Your task to perform on an android device: What is the recent news? Image 0: 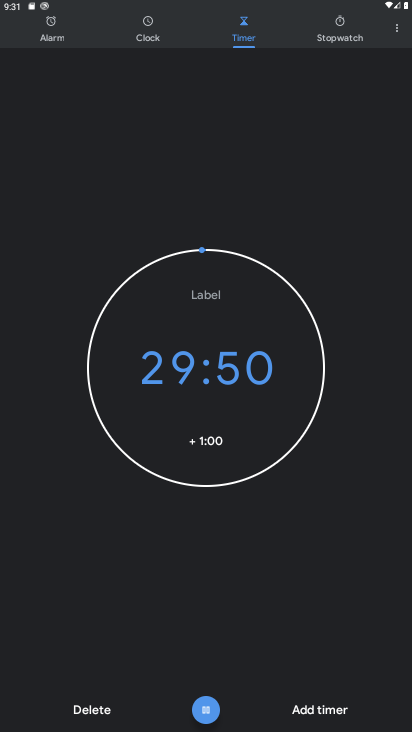
Step 0: press home button
Your task to perform on an android device: What is the recent news? Image 1: 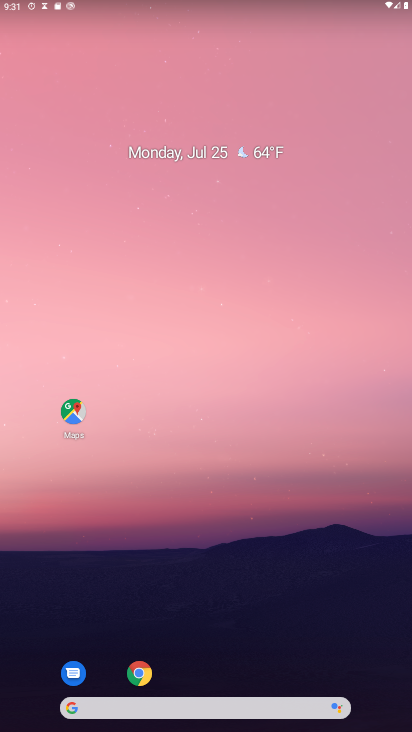
Step 1: drag from (9, 326) to (408, 333)
Your task to perform on an android device: What is the recent news? Image 2: 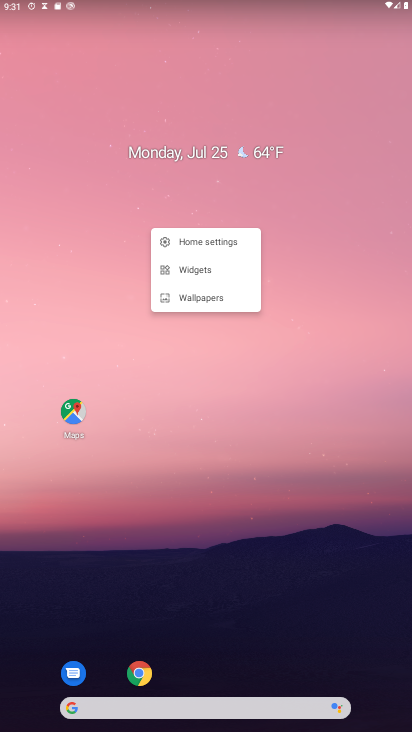
Step 2: click (77, 496)
Your task to perform on an android device: What is the recent news? Image 3: 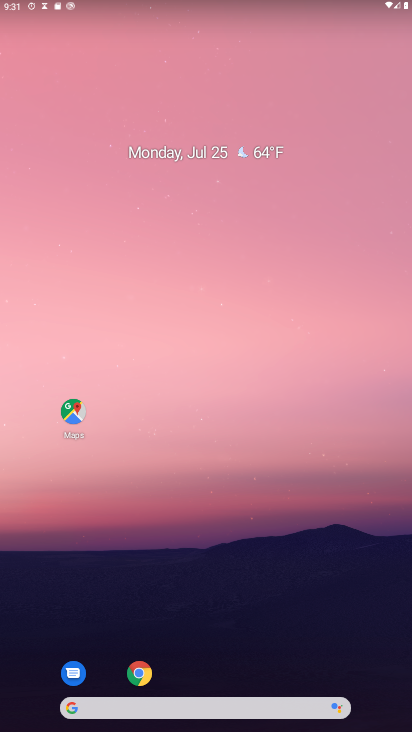
Step 3: task complete